Your task to perform on an android device: toggle location history Image 0: 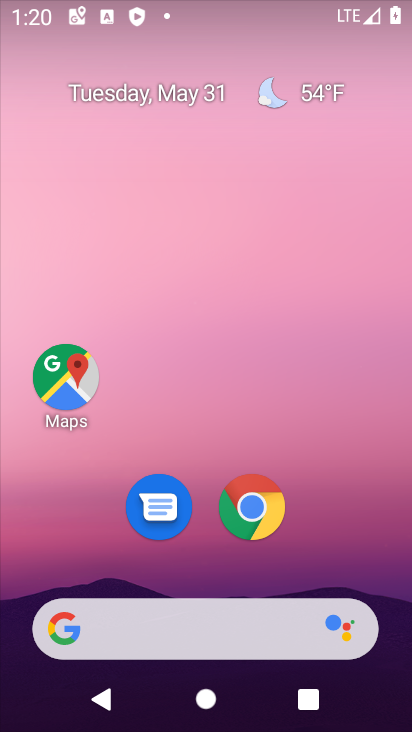
Step 0: drag from (384, 635) to (237, 77)
Your task to perform on an android device: toggle location history Image 1: 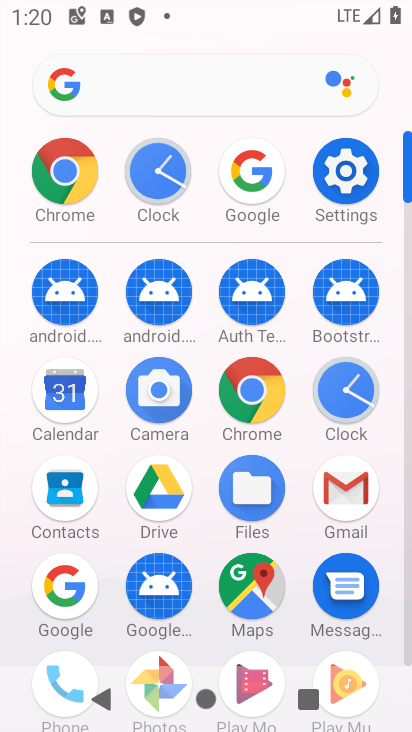
Step 1: click (333, 167)
Your task to perform on an android device: toggle location history Image 2: 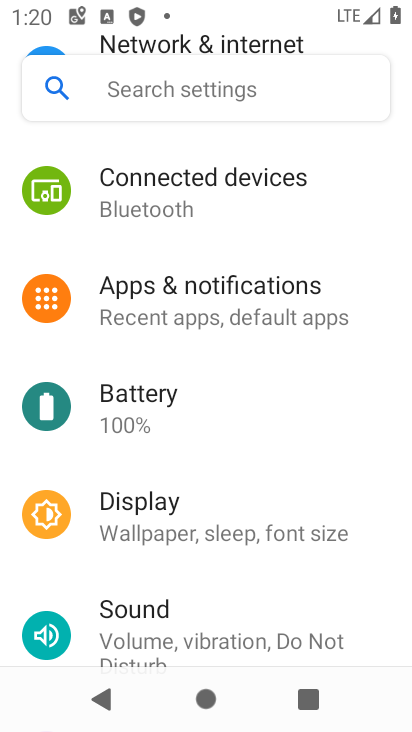
Step 2: drag from (180, 631) to (235, 197)
Your task to perform on an android device: toggle location history Image 3: 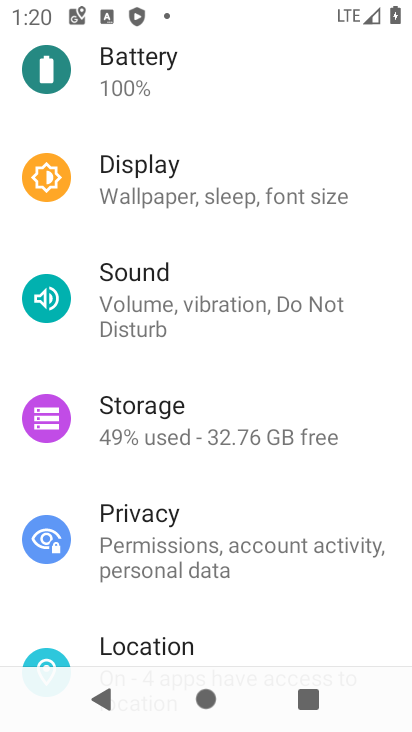
Step 3: click (184, 640)
Your task to perform on an android device: toggle location history Image 4: 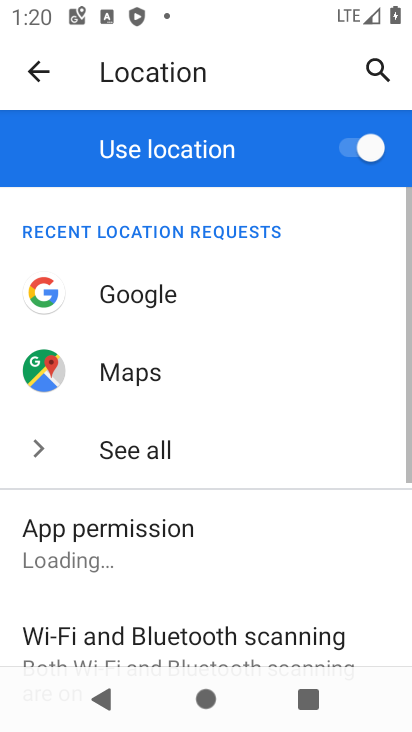
Step 4: drag from (79, 592) to (132, 182)
Your task to perform on an android device: toggle location history Image 5: 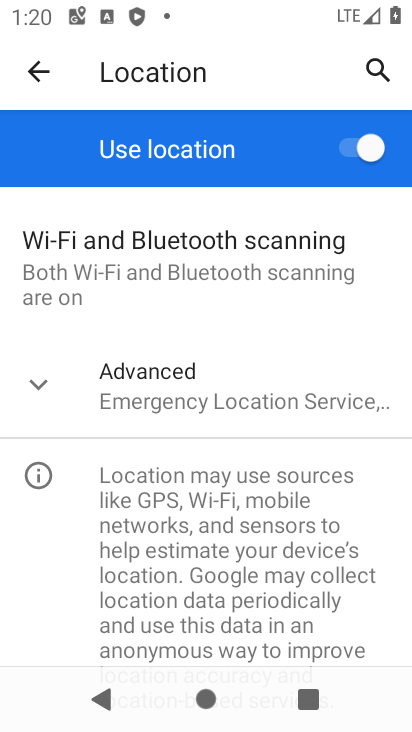
Step 5: click (81, 375)
Your task to perform on an android device: toggle location history Image 6: 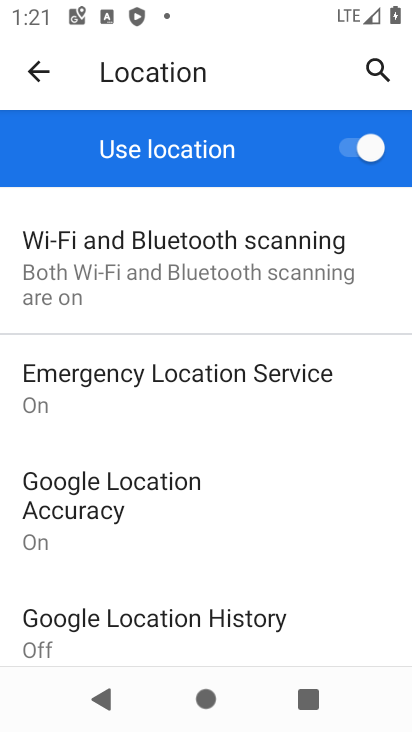
Step 6: click (227, 623)
Your task to perform on an android device: toggle location history Image 7: 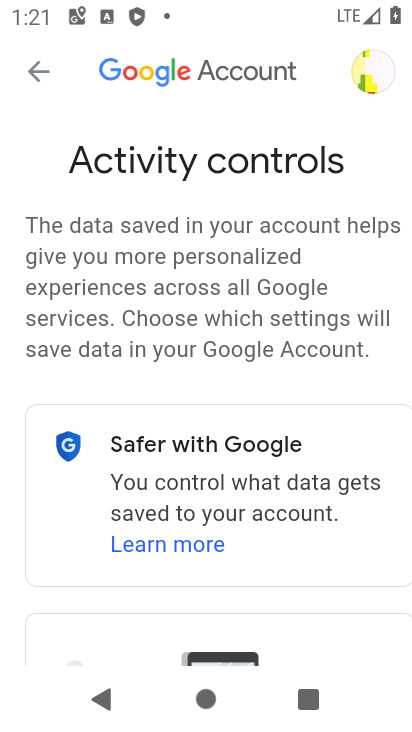
Step 7: drag from (313, 562) to (237, 115)
Your task to perform on an android device: toggle location history Image 8: 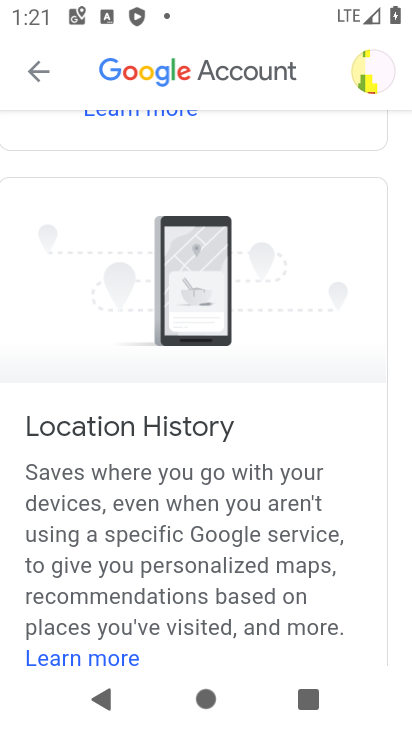
Step 8: drag from (281, 612) to (231, 136)
Your task to perform on an android device: toggle location history Image 9: 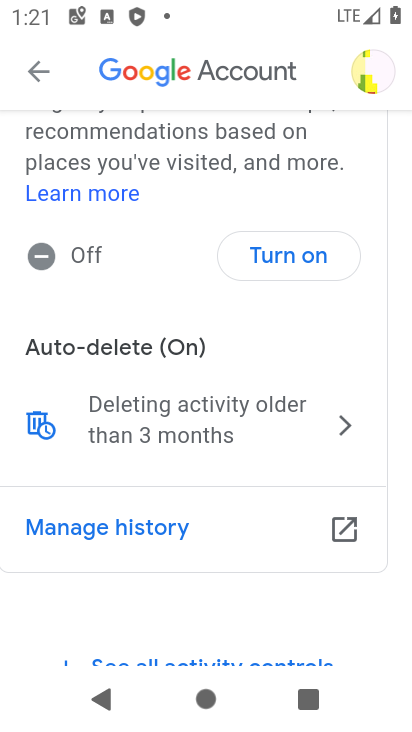
Step 9: click (291, 251)
Your task to perform on an android device: toggle location history Image 10: 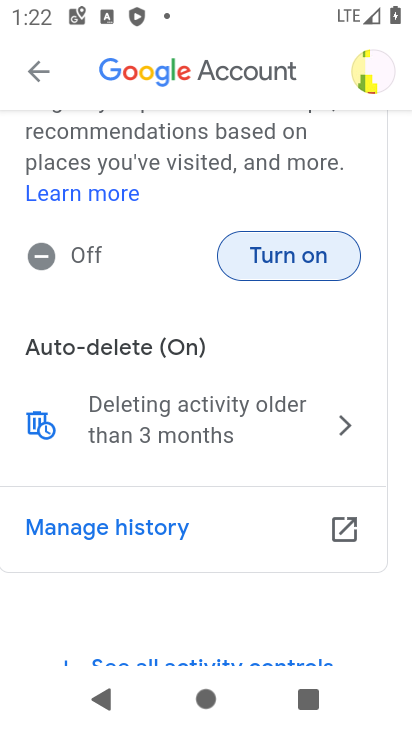
Step 10: task complete